Your task to perform on an android device: toggle show notifications on the lock screen Image 0: 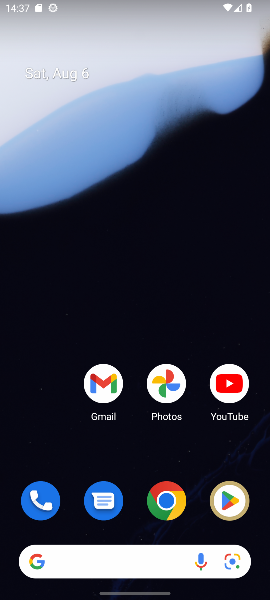
Step 0: press home button
Your task to perform on an android device: toggle show notifications on the lock screen Image 1: 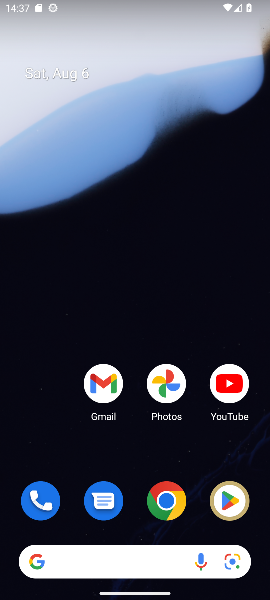
Step 1: drag from (150, 479) to (198, 126)
Your task to perform on an android device: toggle show notifications on the lock screen Image 2: 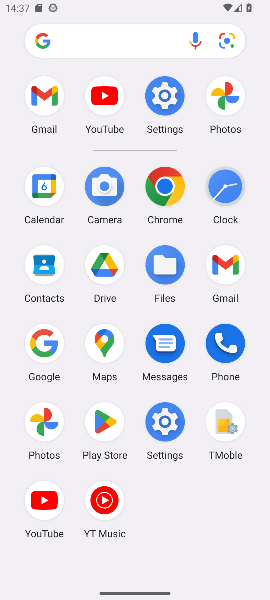
Step 2: click (162, 95)
Your task to perform on an android device: toggle show notifications on the lock screen Image 3: 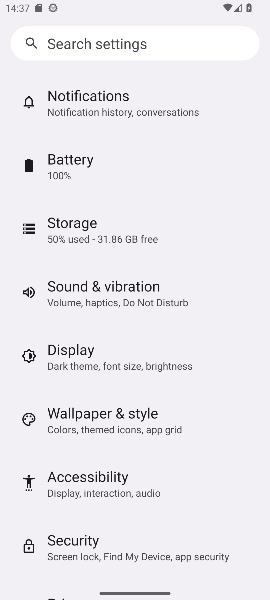
Step 3: click (68, 109)
Your task to perform on an android device: toggle show notifications on the lock screen Image 4: 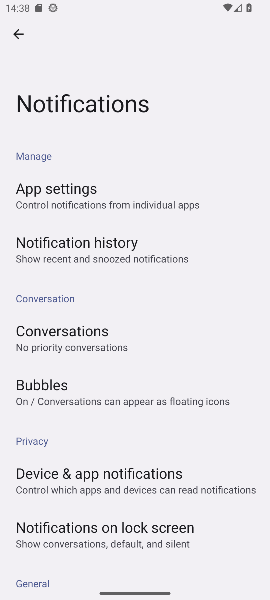
Step 4: click (94, 542)
Your task to perform on an android device: toggle show notifications on the lock screen Image 5: 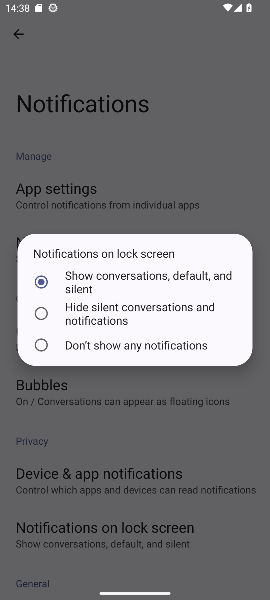
Step 5: click (38, 346)
Your task to perform on an android device: toggle show notifications on the lock screen Image 6: 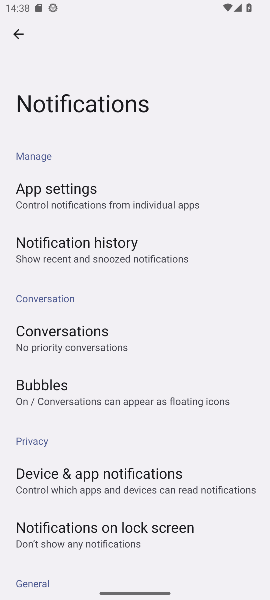
Step 6: task complete